Your task to perform on an android device: turn on showing notifications on the lock screen Image 0: 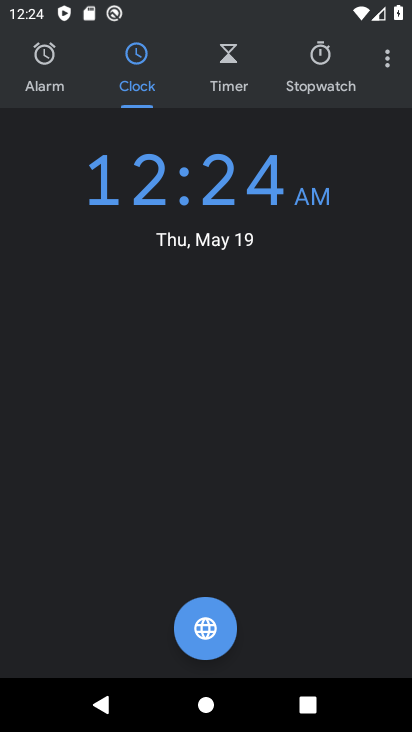
Step 0: press back button
Your task to perform on an android device: turn on showing notifications on the lock screen Image 1: 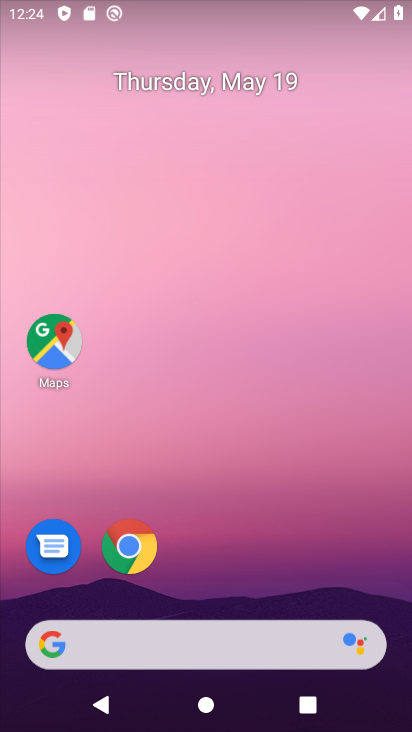
Step 1: drag from (277, 548) to (181, 145)
Your task to perform on an android device: turn on showing notifications on the lock screen Image 2: 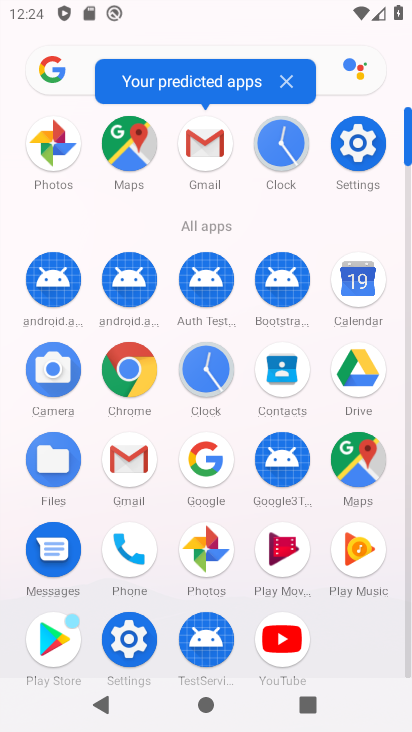
Step 2: click (355, 145)
Your task to perform on an android device: turn on showing notifications on the lock screen Image 3: 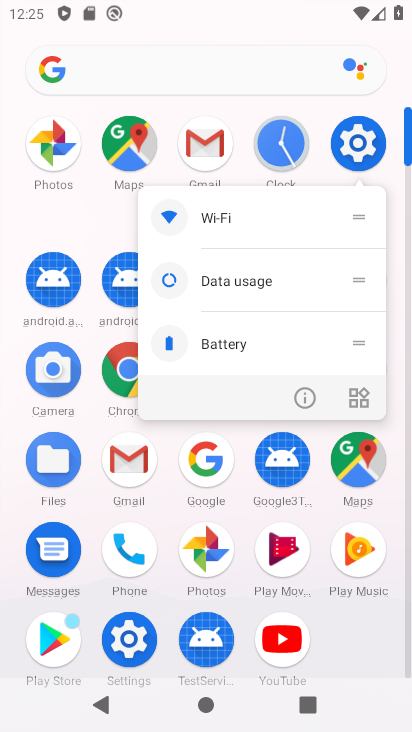
Step 3: click (359, 146)
Your task to perform on an android device: turn on showing notifications on the lock screen Image 4: 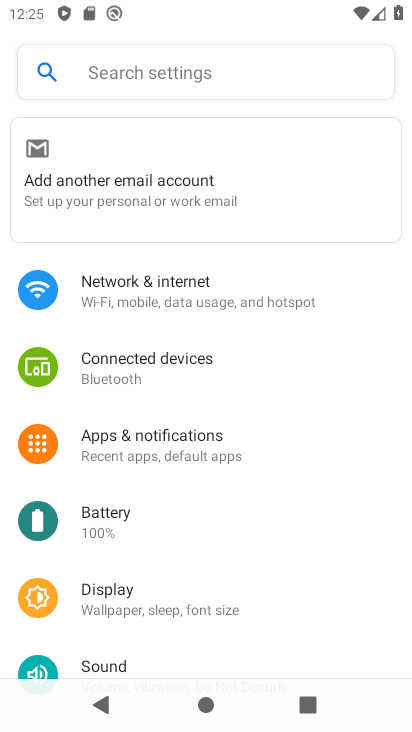
Step 4: click (176, 446)
Your task to perform on an android device: turn on showing notifications on the lock screen Image 5: 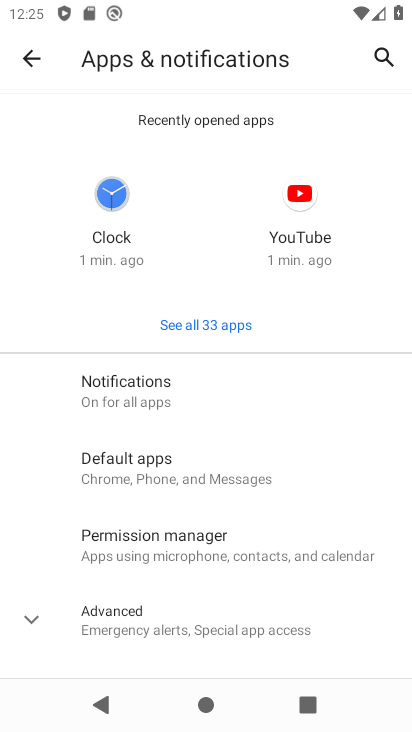
Step 5: click (120, 381)
Your task to perform on an android device: turn on showing notifications on the lock screen Image 6: 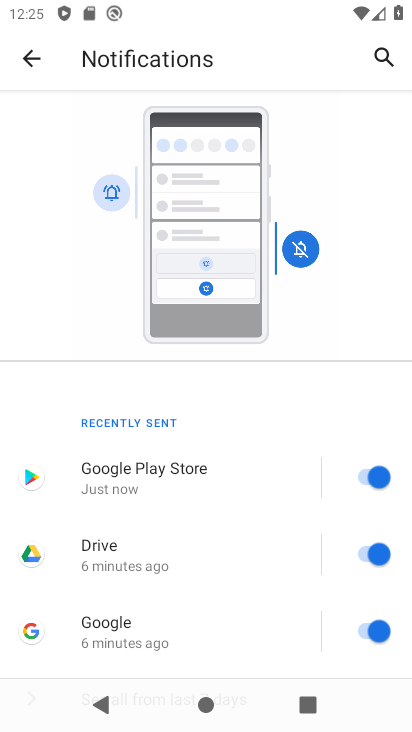
Step 6: drag from (160, 525) to (209, 421)
Your task to perform on an android device: turn on showing notifications on the lock screen Image 7: 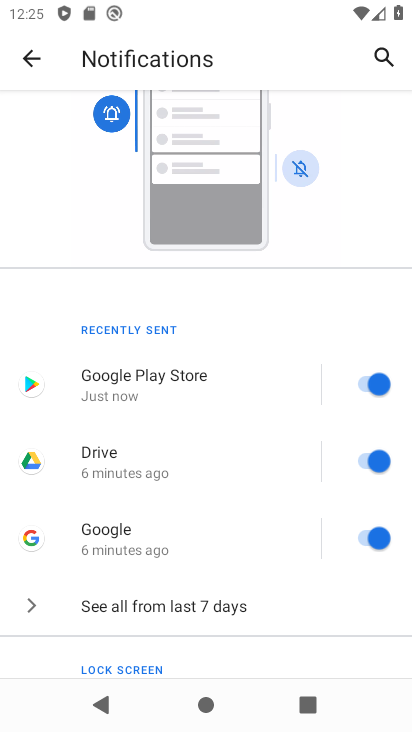
Step 7: drag from (154, 571) to (211, 478)
Your task to perform on an android device: turn on showing notifications on the lock screen Image 8: 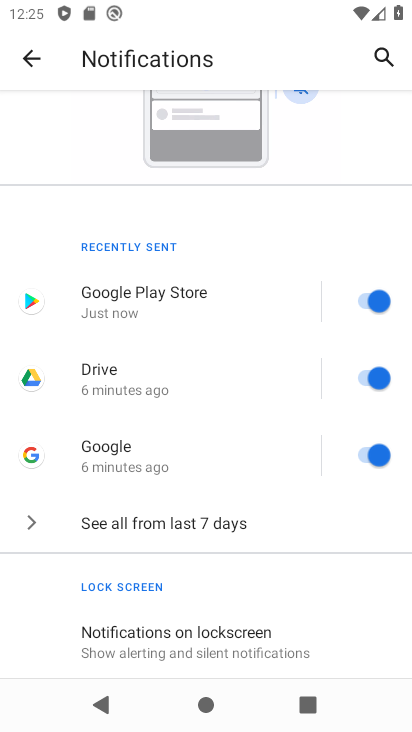
Step 8: drag from (198, 592) to (212, 525)
Your task to perform on an android device: turn on showing notifications on the lock screen Image 9: 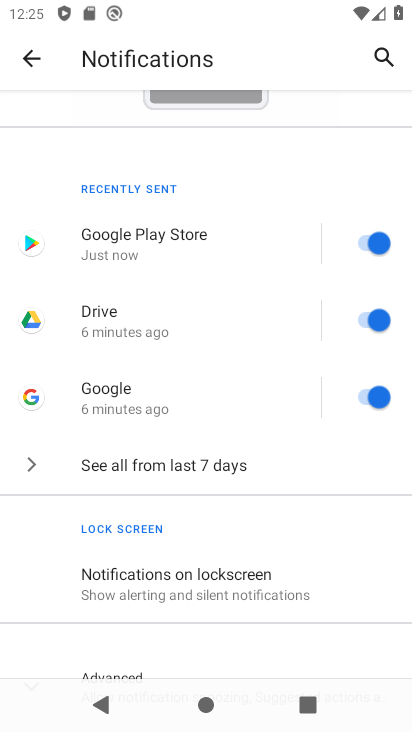
Step 9: click (170, 572)
Your task to perform on an android device: turn on showing notifications on the lock screen Image 10: 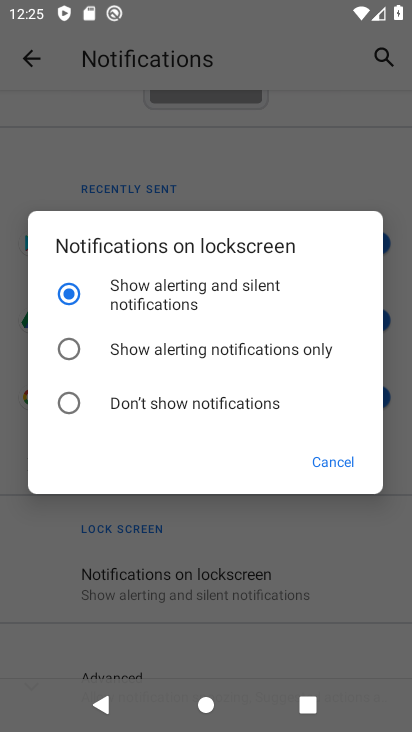
Step 10: click (66, 297)
Your task to perform on an android device: turn on showing notifications on the lock screen Image 11: 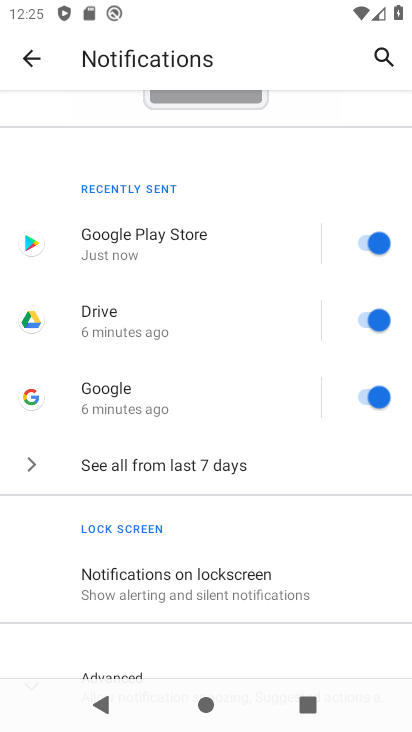
Step 11: task complete